Your task to perform on an android device: change the upload size in google photos Image 0: 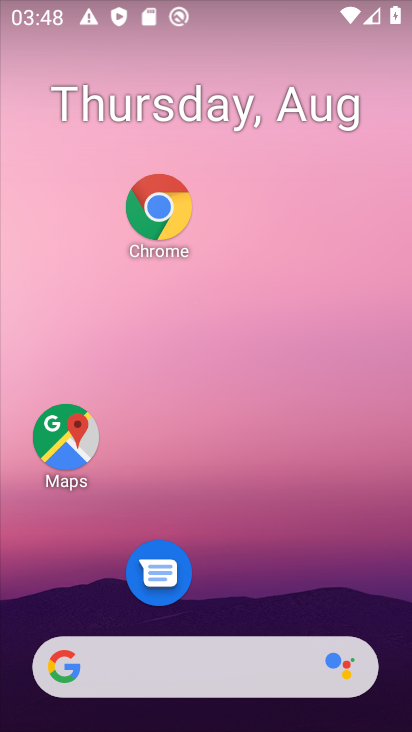
Step 0: drag from (276, 499) to (211, 224)
Your task to perform on an android device: change the upload size in google photos Image 1: 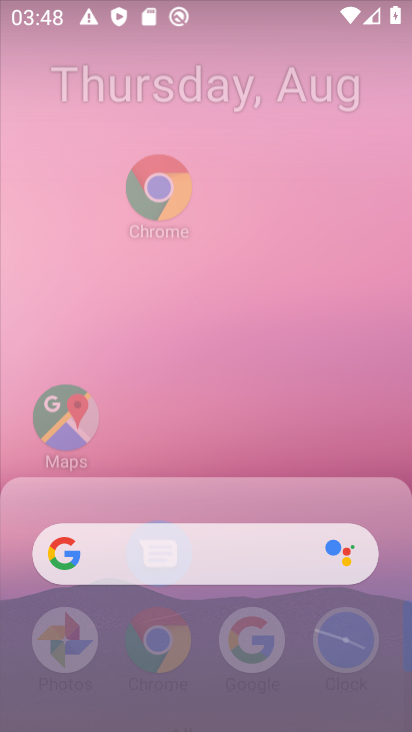
Step 1: drag from (244, 509) to (174, 255)
Your task to perform on an android device: change the upload size in google photos Image 2: 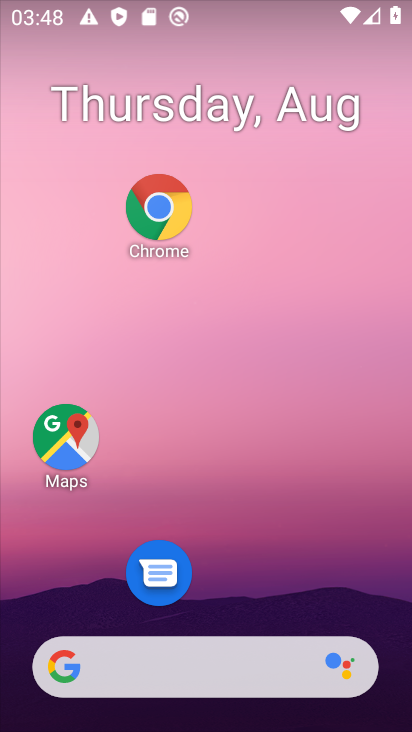
Step 2: drag from (208, 625) to (158, 134)
Your task to perform on an android device: change the upload size in google photos Image 3: 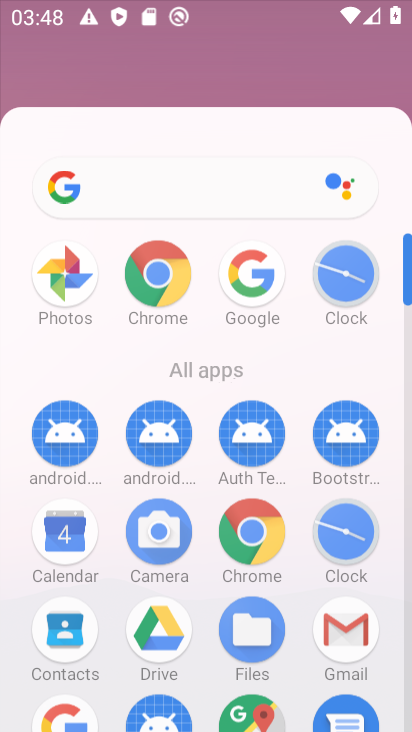
Step 3: drag from (232, 490) to (177, 173)
Your task to perform on an android device: change the upload size in google photos Image 4: 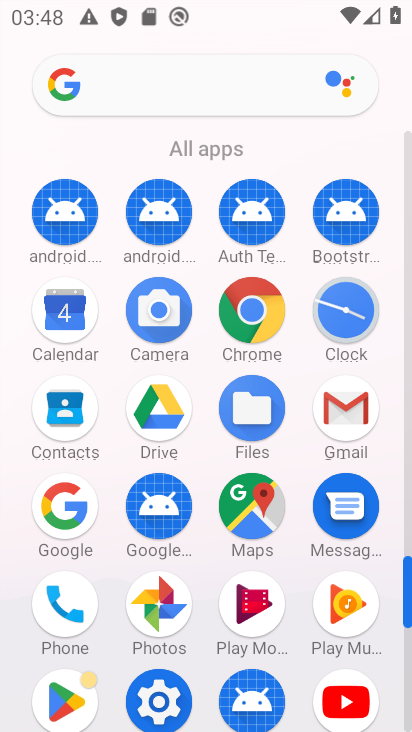
Step 4: drag from (194, 574) to (169, 234)
Your task to perform on an android device: change the upload size in google photos Image 5: 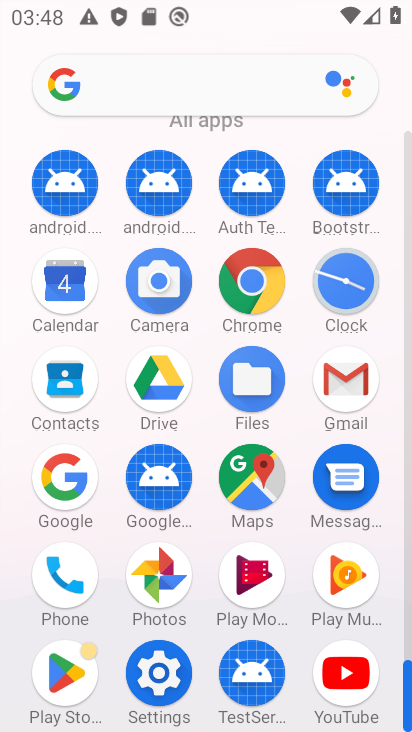
Step 5: click (170, 565)
Your task to perform on an android device: change the upload size in google photos Image 6: 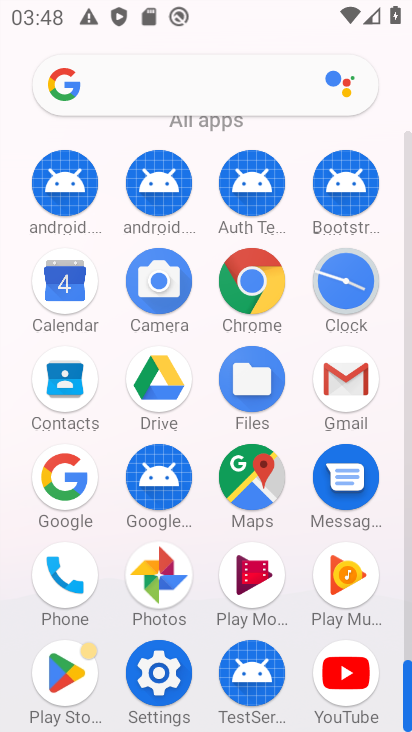
Step 6: click (170, 566)
Your task to perform on an android device: change the upload size in google photos Image 7: 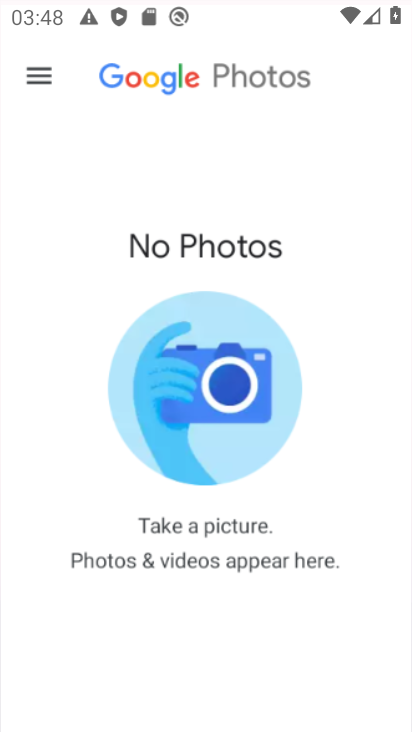
Step 7: click (170, 566)
Your task to perform on an android device: change the upload size in google photos Image 8: 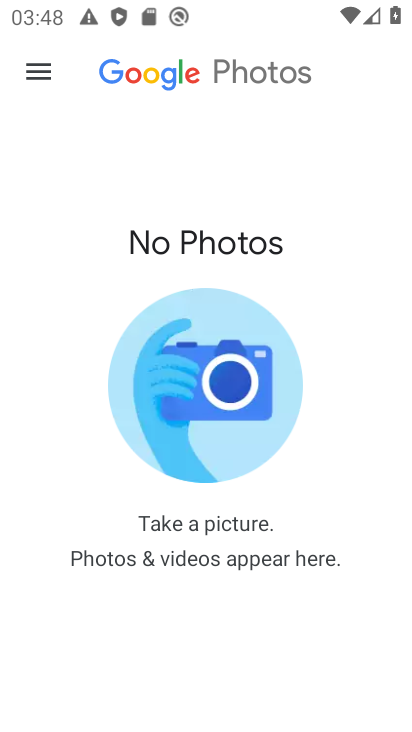
Step 8: click (31, 77)
Your task to perform on an android device: change the upload size in google photos Image 9: 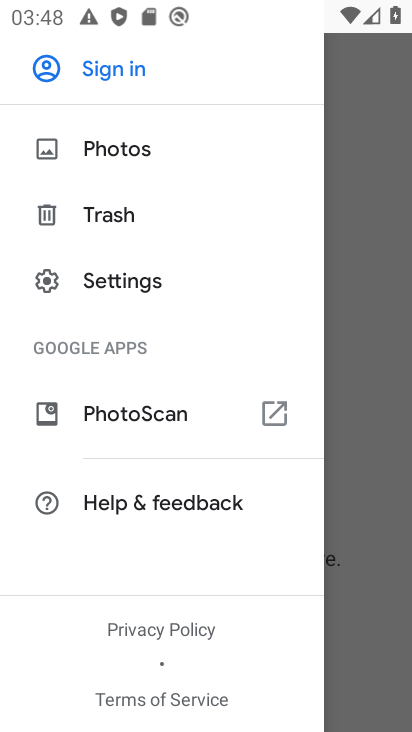
Step 9: click (113, 286)
Your task to perform on an android device: change the upload size in google photos Image 10: 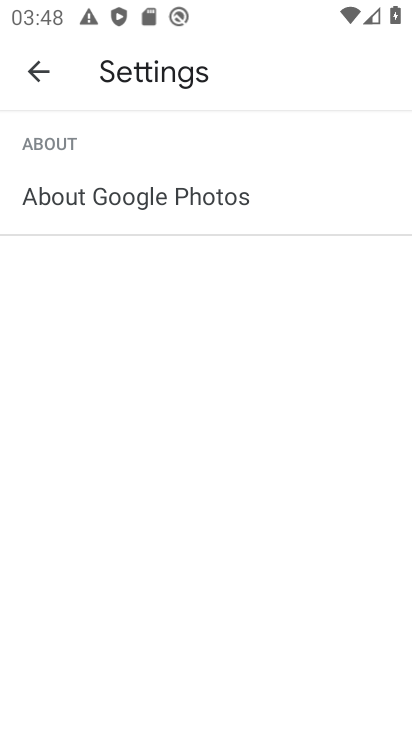
Step 10: click (38, 71)
Your task to perform on an android device: change the upload size in google photos Image 11: 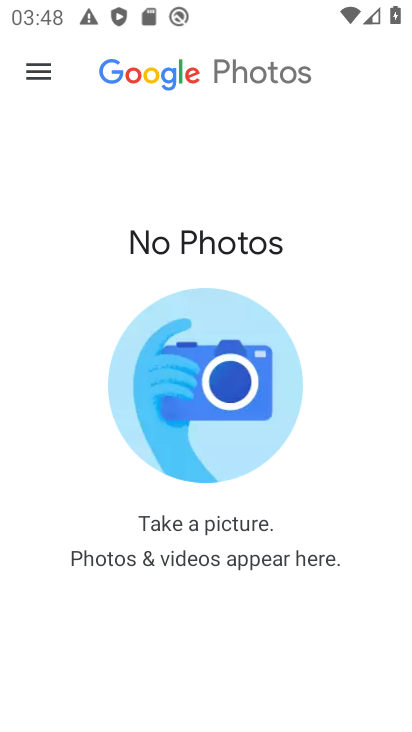
Step 11: drag from (43, 66) to (81, 494)
Your task to perform on an android device: change the upload size in google photos Image 12: 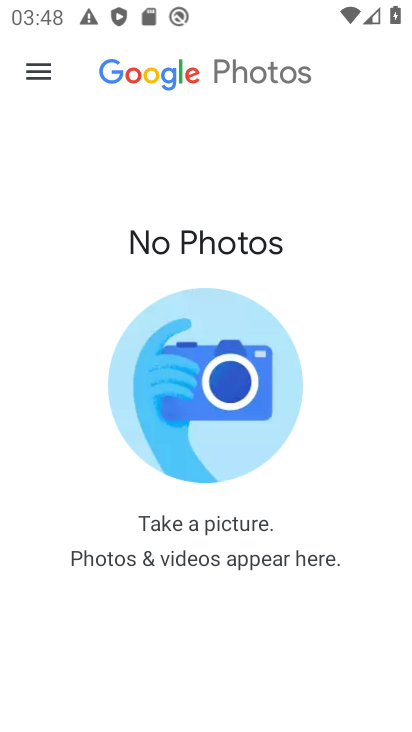
Step 12: click (42, 75)
Your task to perform on an android device: change the upload size in google photos Image 13: 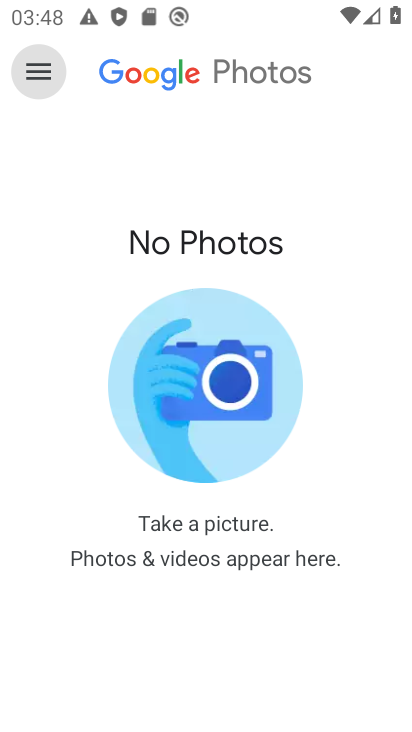
Step 13: click (42, 75)
Your task to perform on an android device: change the upload size in google photos Image 14: 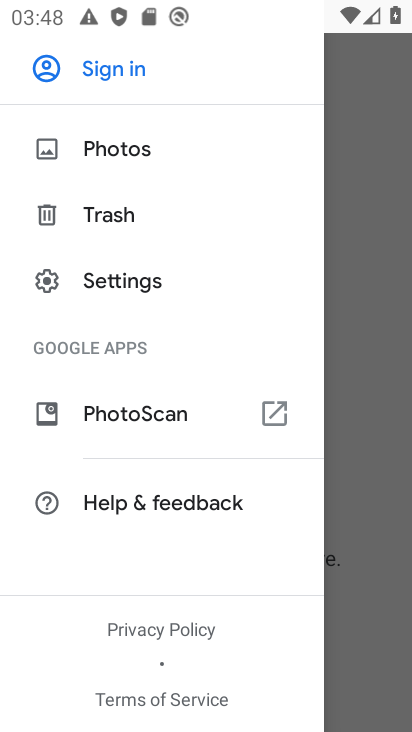
Step 14: click (103, 291)
Your task to perform on an android device: change the upload size in google photos Image 15: 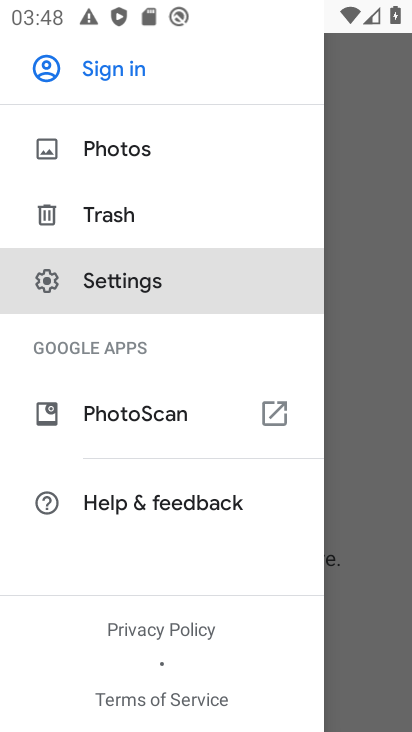
Step 15: click (103, 287)
Your task to perform on an android device: change the upload size in google photos Image 16: 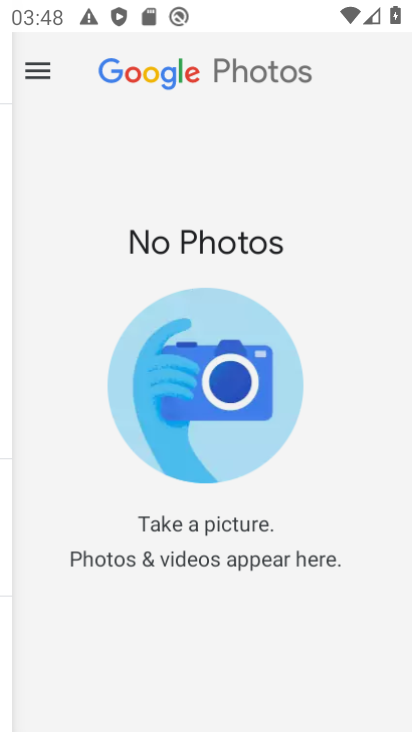
Step 16: click (105, 288)
Your task to perform on an android device: change the upload size in google photos Image 17: 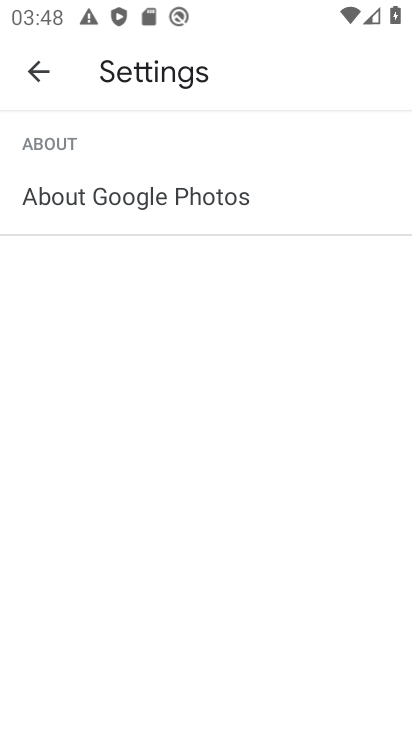
Step 17: click (88, 206)
Your task to perform on an android device: change the upload size in google photos Image 18: 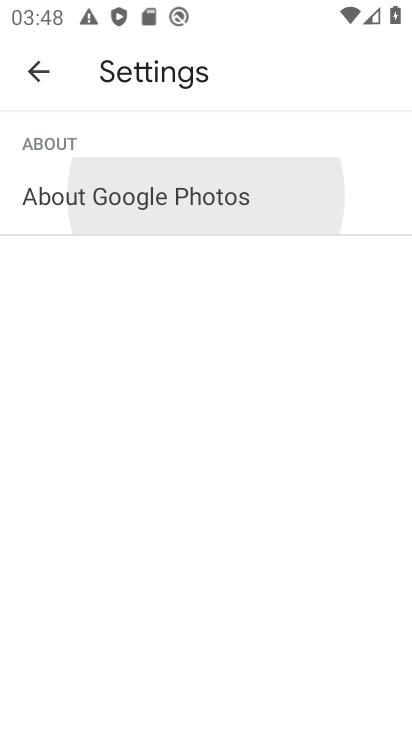
Step 18: click (92, 203)
Your task to perform on an android device: change the upload size in google photos Image 19: 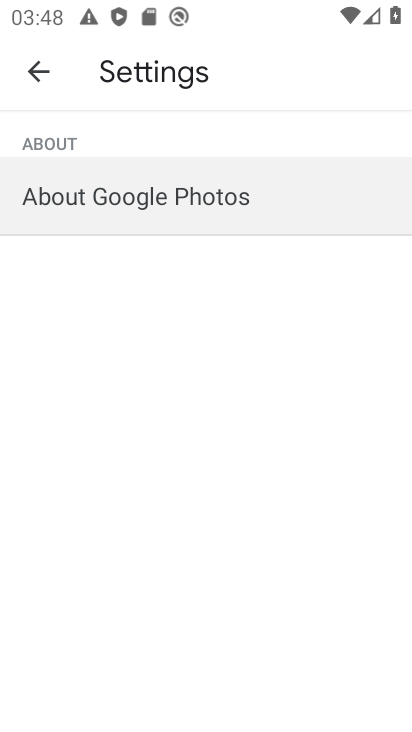
Step 19: click (103, 196)
Your task to perform on an android device: change the upload size in google photos Image 20: 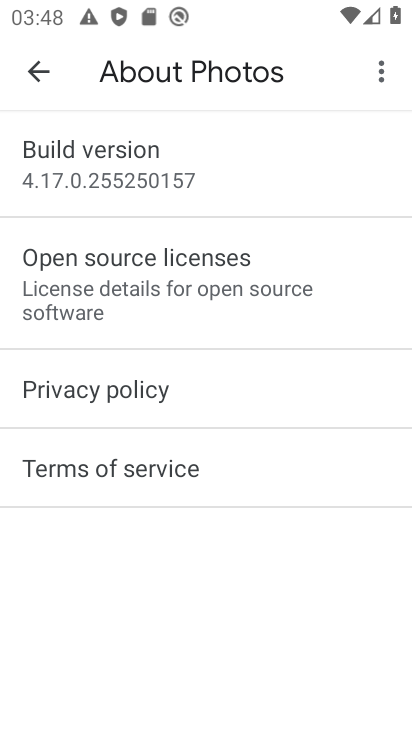
Step 20: task complete